Your task to perform on an android device: Open Wikipedia Image 0: 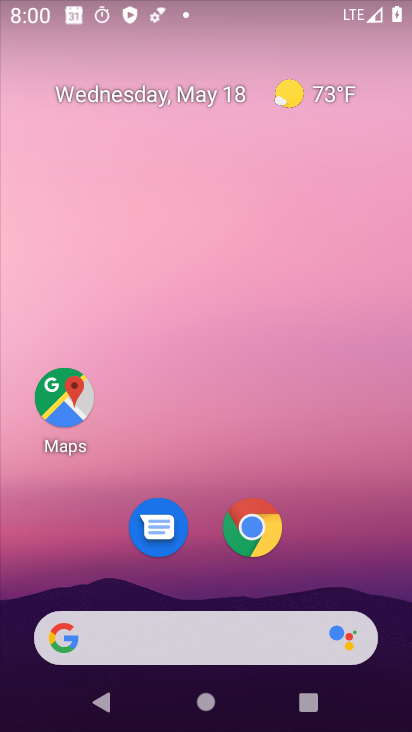
Step 0: click (248, 530)
Your task to perform on an android device: Open Wikipedia Image 1: 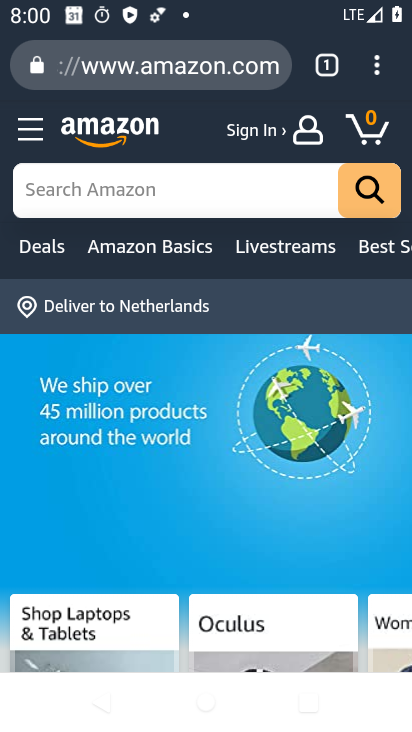
Step 1: click (281, 64)
Your task to perform on an android device: Open Wikipedia Image 2: 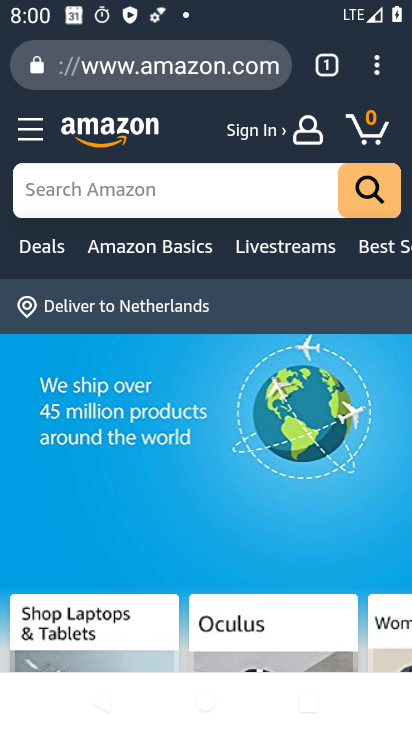
Step 2: click (281, 60)
Your task to perform on an android device: Open Wikipedia Image 3: 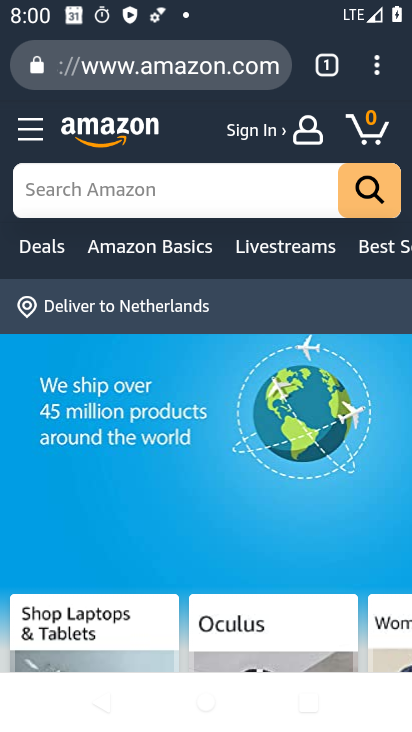
Step 3: click (281, 70)
Your task to perform on an android device: Open Wikipedia Image 4: 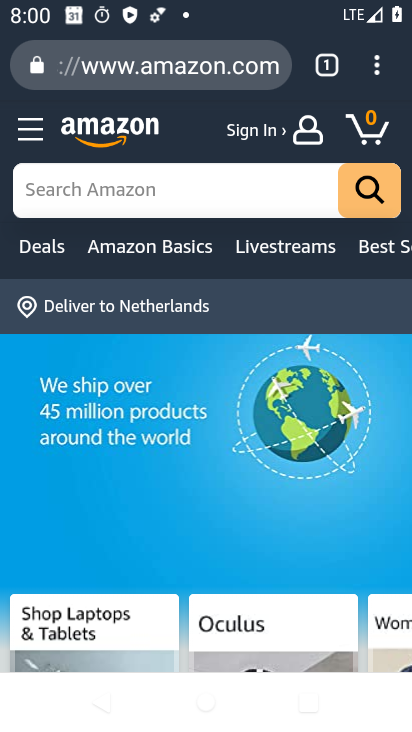
Step 4: press back button
Your task to perform on an android device: Open Wikipedia Image 5: 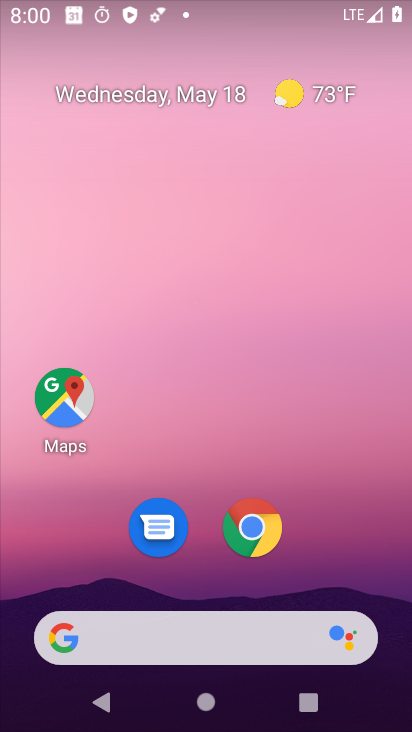
Step 5: click (244, 526)
Your task to perform on an android device: Open Wikipedia Image 6: 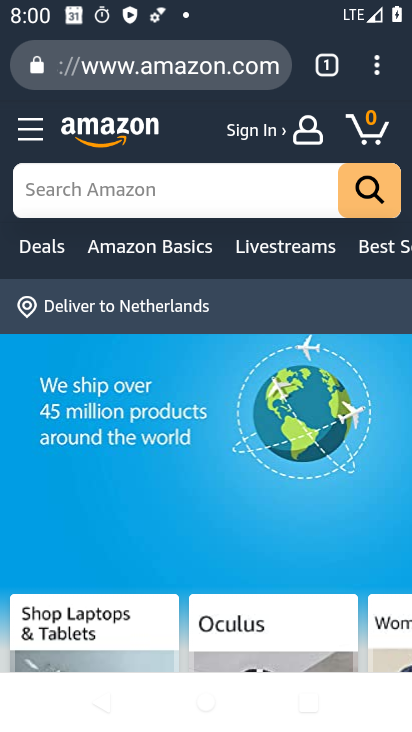
Step 6: click (278, 63)
Your task to perform on an android device: Open Wikipedia Image 7: 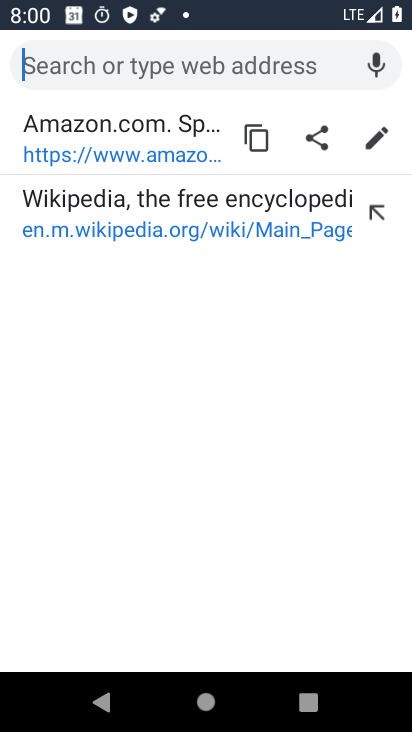
Step 7: type "Wikipedia"
Your task to perform on an android device: Open Wikipedia Image 8: 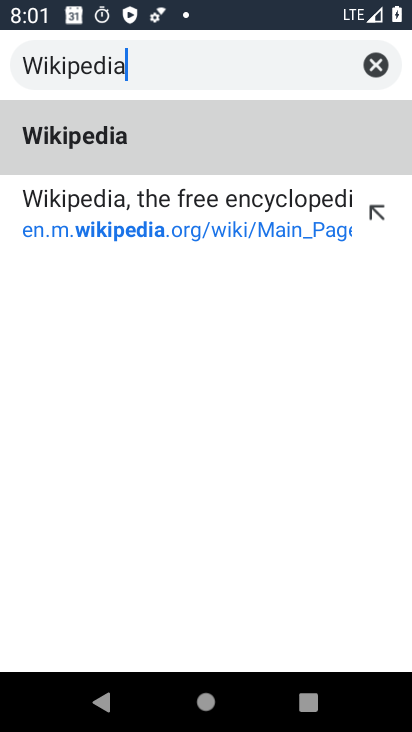
Step 8: click (91, 138)
Your task to perform on an android device: Open Wikipedia Image 9: 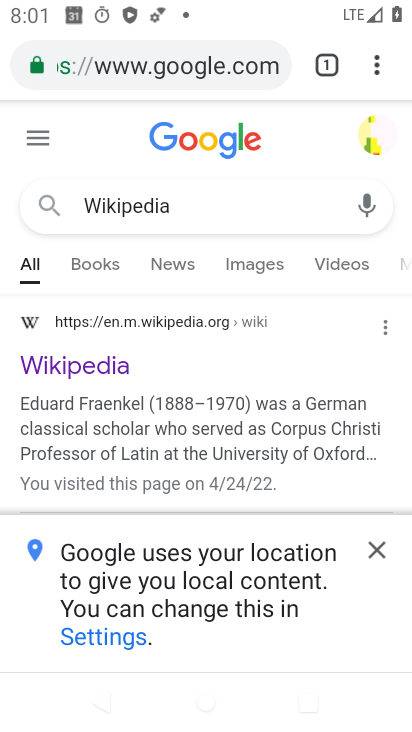
Step 9: task complete